Your task to perform on an android device: toggle data saver in the chrome app Image 0: 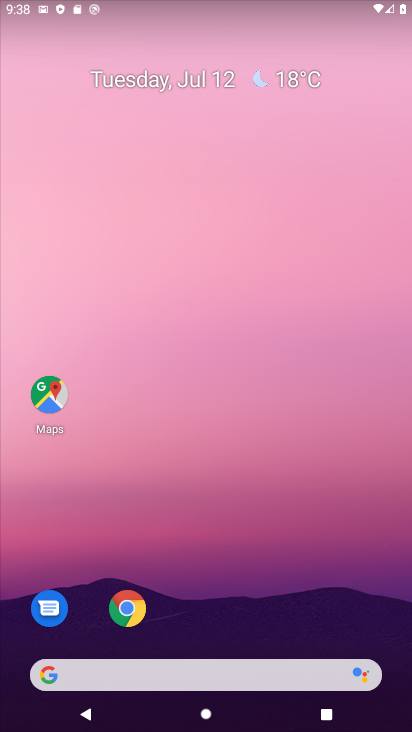
Step 0: click (124, 614)
Your task to perform on an android device: toggle data saver in the chrome app Image 1: 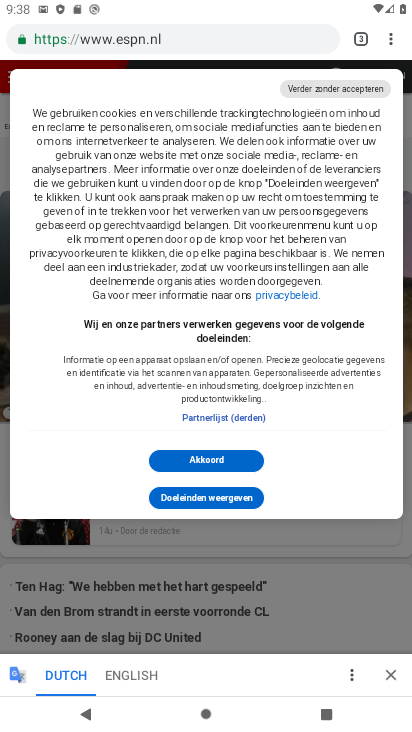
Step 1: click (202, 458)
Your task to perform on an android device: toggle data saver in the chrome app Image 2: 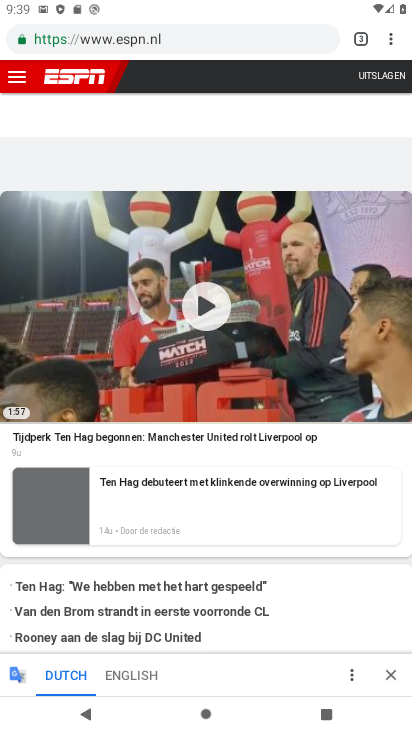
Step 2: click (389, 37)
Your task to perform on an android device: toggle data saver in the chrome app Image 3: 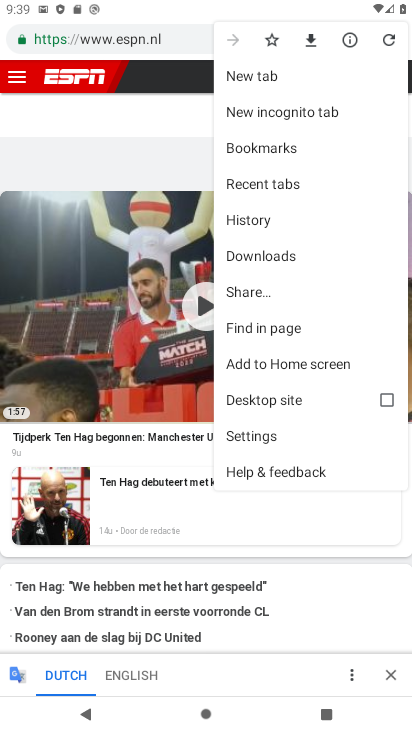
Step 3: click (256, 439)
Your task to perform on an android device: toggle data saver in the chrome app Image 4: 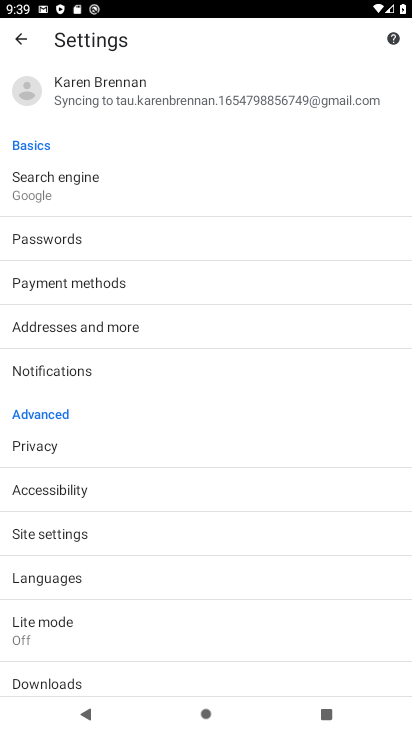
Step 4: click (54, 621)
Your task to perform on an android device: toggle data saver in the chrome app Image 5: 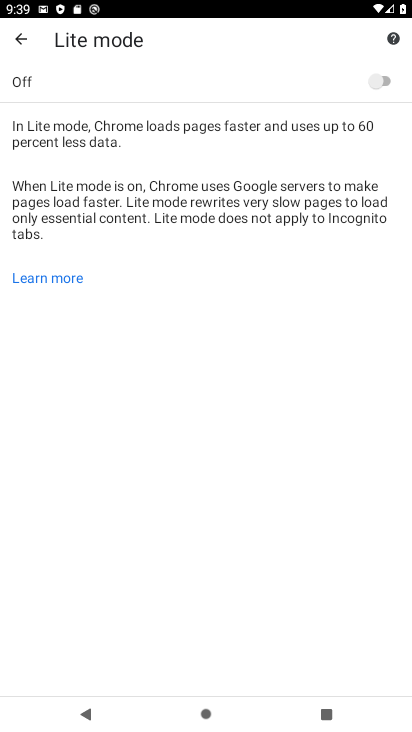
Step 5: click (376, 78)
Your task to perform on an android device: toggle data saver in the chrome app Image 6: 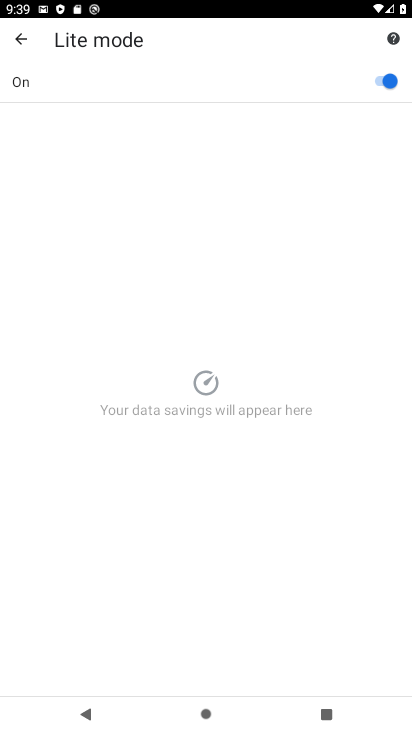
Step 6: task complete